Your task to perform on an android device: Open settings Image 0: 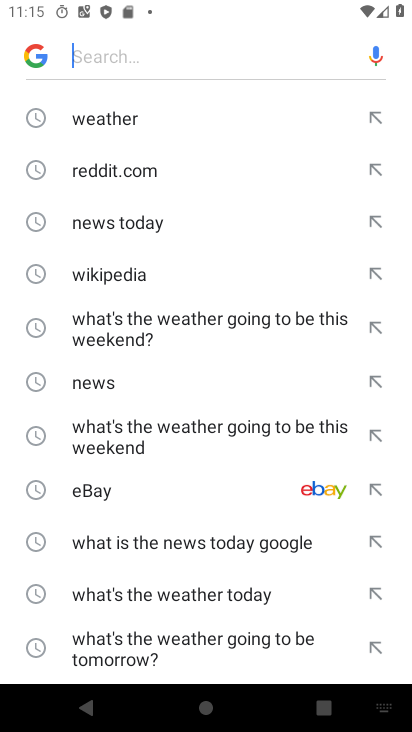
Step 0: press home button
Your task to perform on an android device: Open settings Image 1: 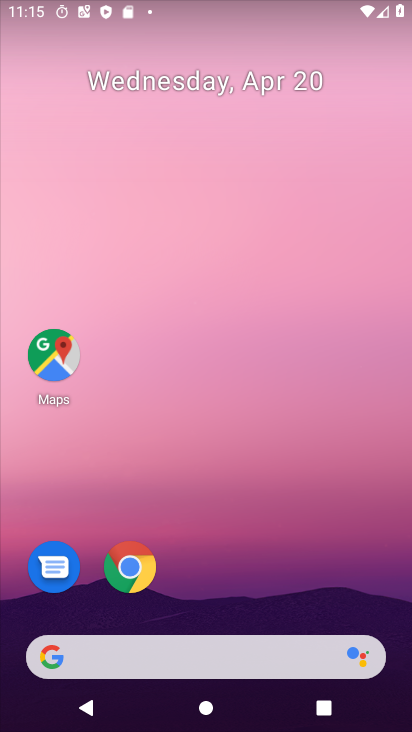
Step 1: drag from (255, 482) to (298, 63)
Your task to perform on an android device: Open settings Image 2: 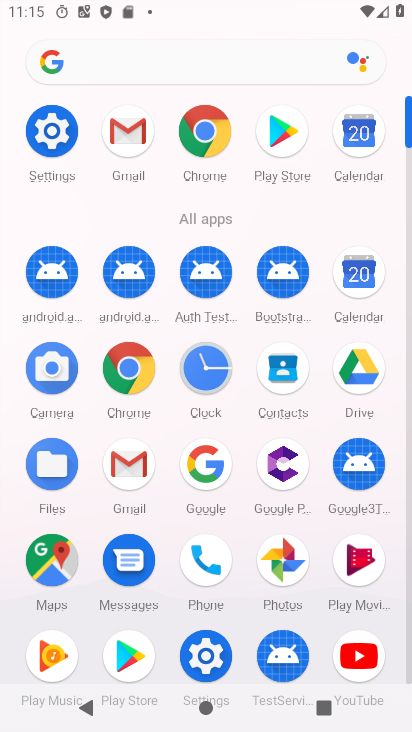
Step 2: click (45, 144)
Your task to perform on an android device: Open settings Image 3: 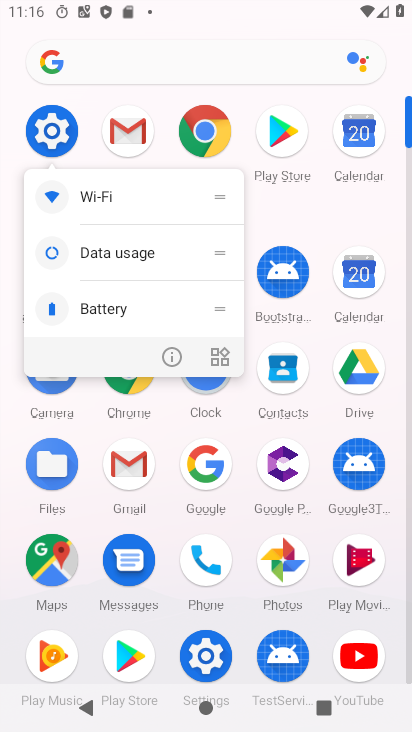
Step 3: click (174, 362)
Your task to perform on an android device: Open settings Image 4: 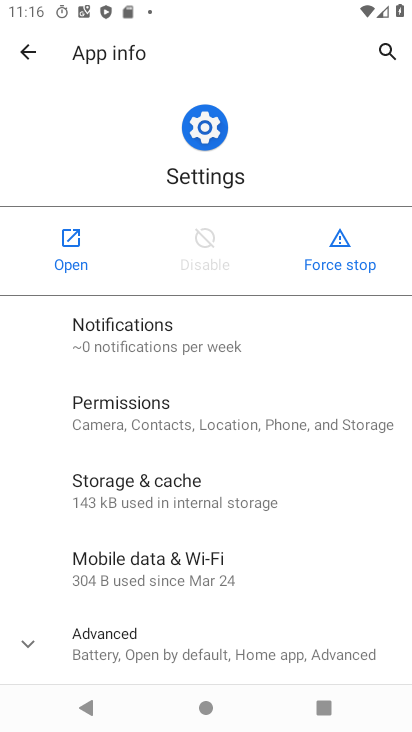
Step 4: click (65, 253)
Your task to perform on an android device: Open settings Image 5: 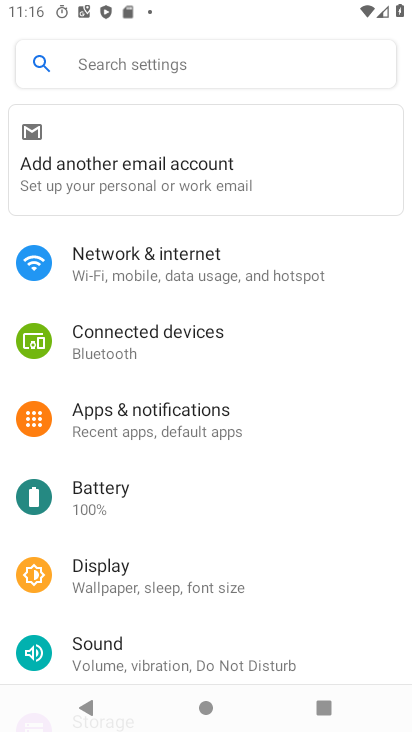
Step 5: task complete